Your task to perform on an android device: delete browsing data in the chrome app Image 0: 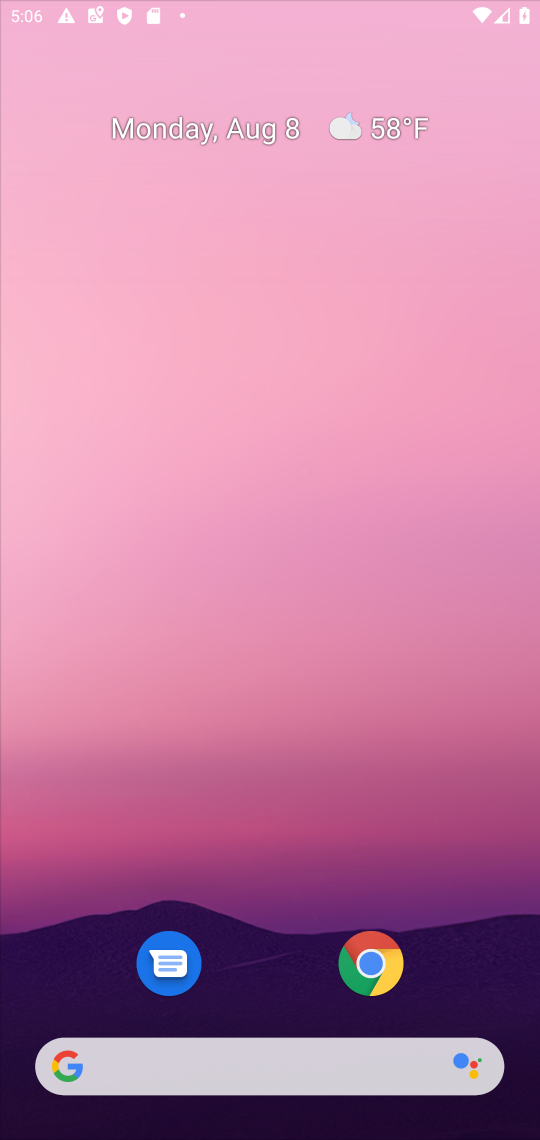
Step 0: press home button
Your task to perform on an android device: delete browsing data in the chrome app Image 1: 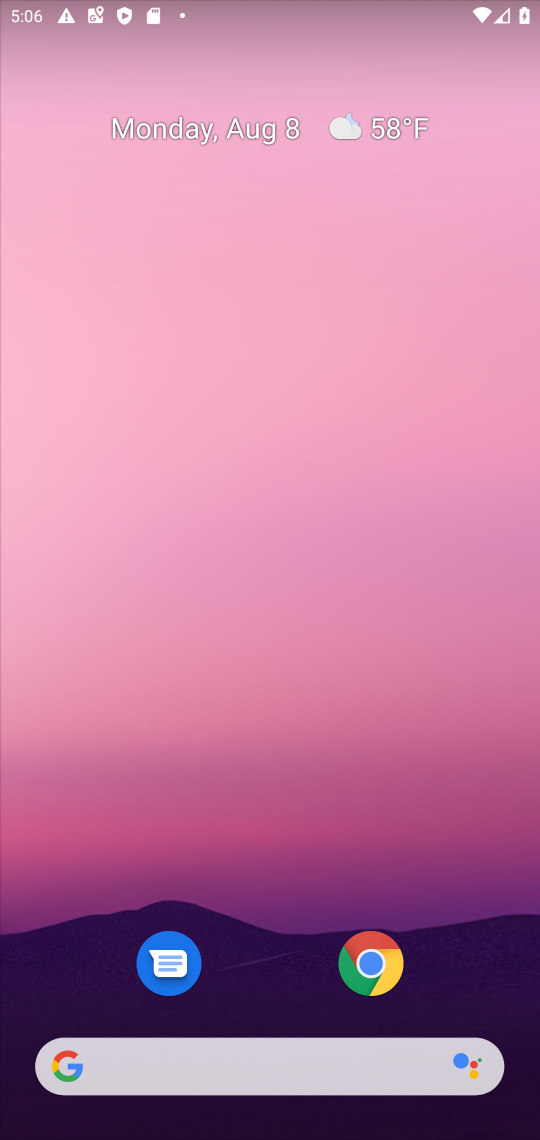
Step 1: click (366, 956)
Your task to perform on an android device: delete browsing data in the chrome app Image 2: 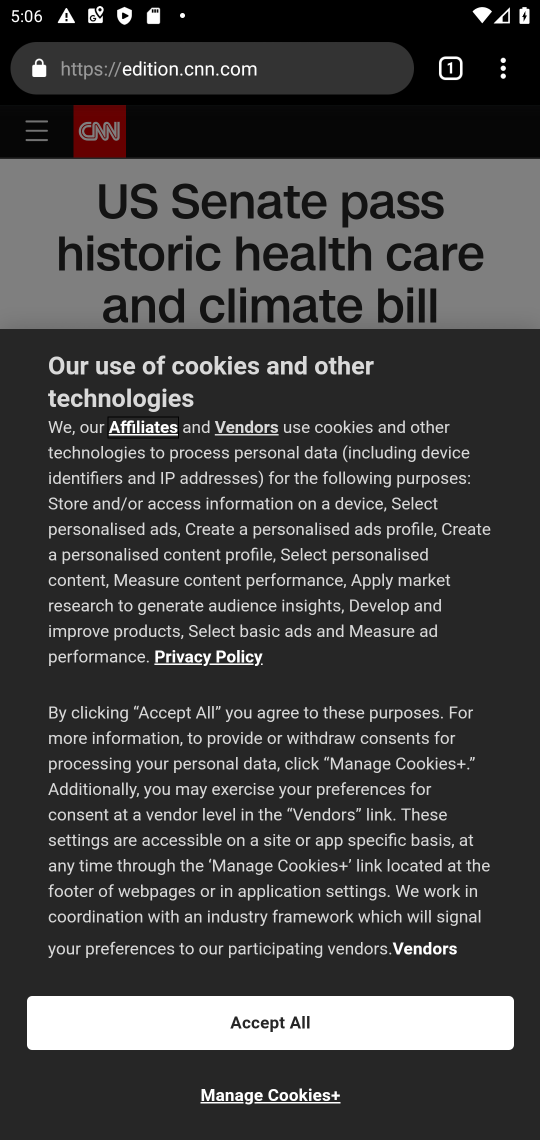
Step 2: click (501, 51)
Your task to perform on an android device: delete browsing data in the chrome app Image 3: 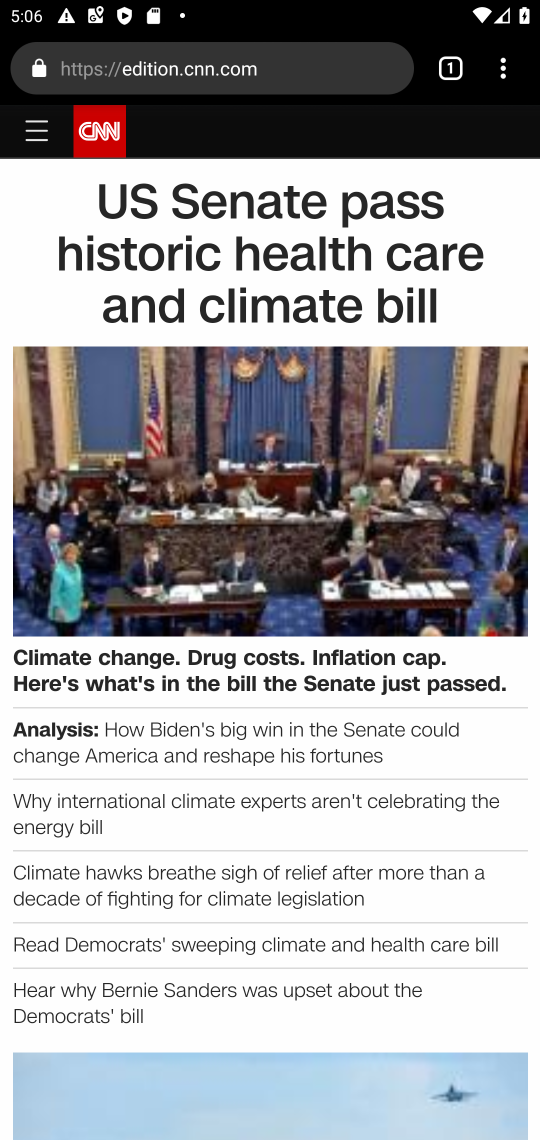
Step 3: click (512, 75)
Your task to perform on an android device: delete browsing data in the chrome app Image 4: 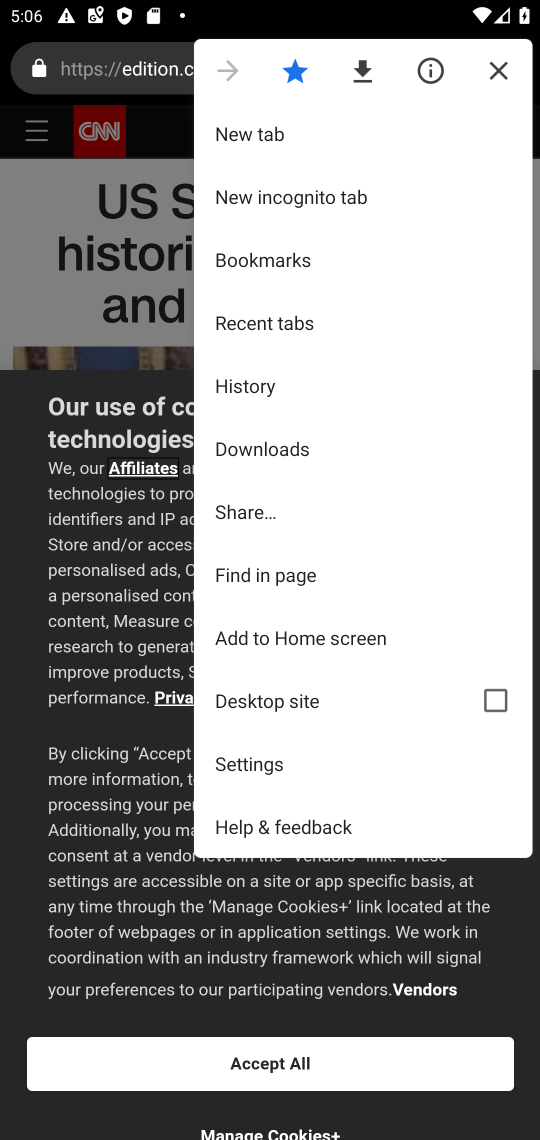
Step 4: click (255, 386)
Your task to perform on an android device: delete browsing data in the chrome app Image 5: 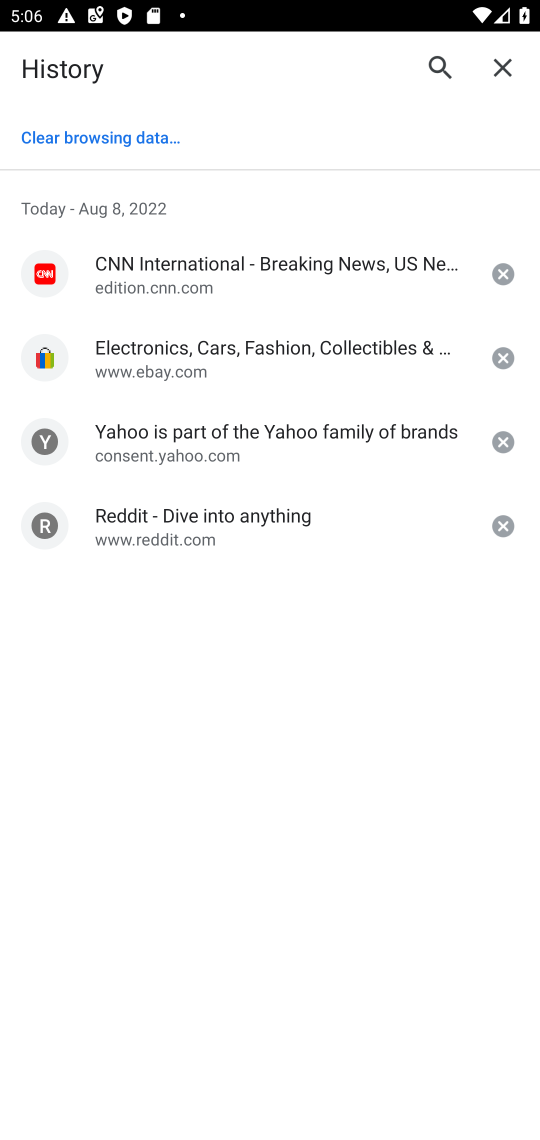
Step 5: click (98, 139)
Your task to perform on an android device: delete browsing data in the chrome app Image 6: 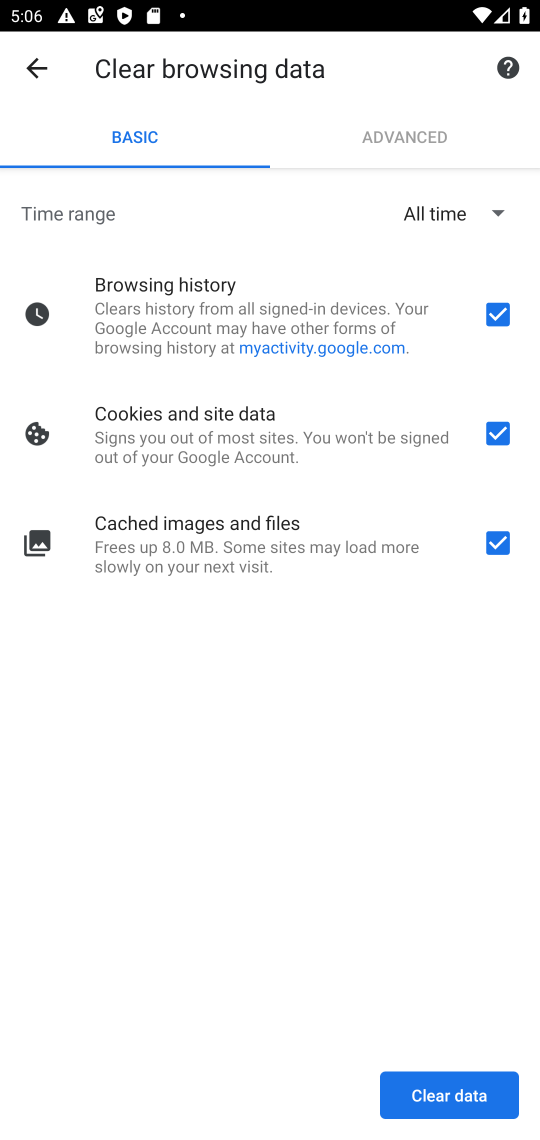
Step 6: click (423, 1115)
Your task to perform on an android device: delete browsing data in the chrome app Image 7: 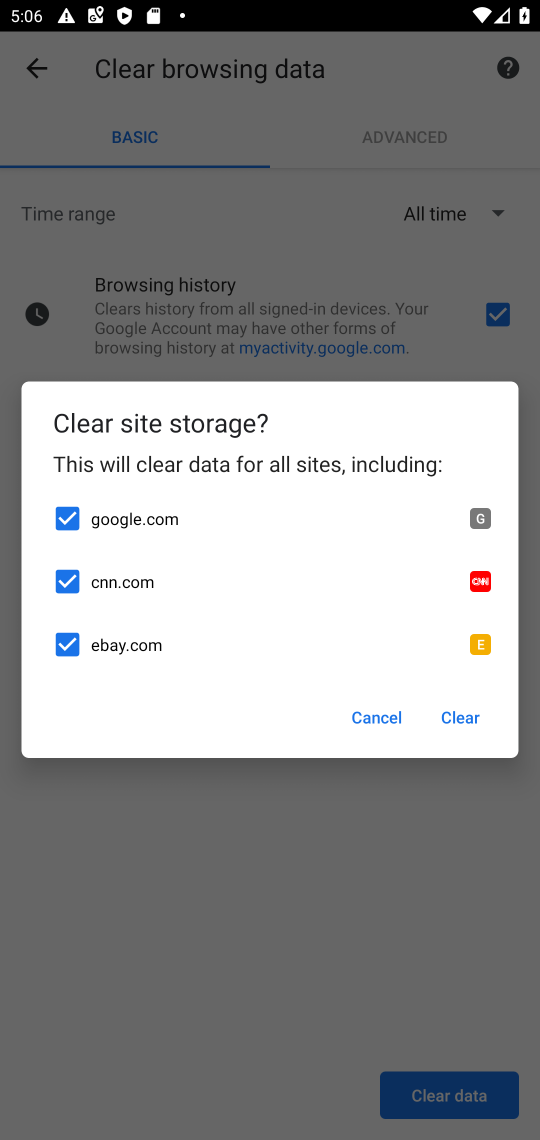
Step 7: click (471, 723)
Your task to perform on an android device: delete browsing data in the chrome app Image 8: 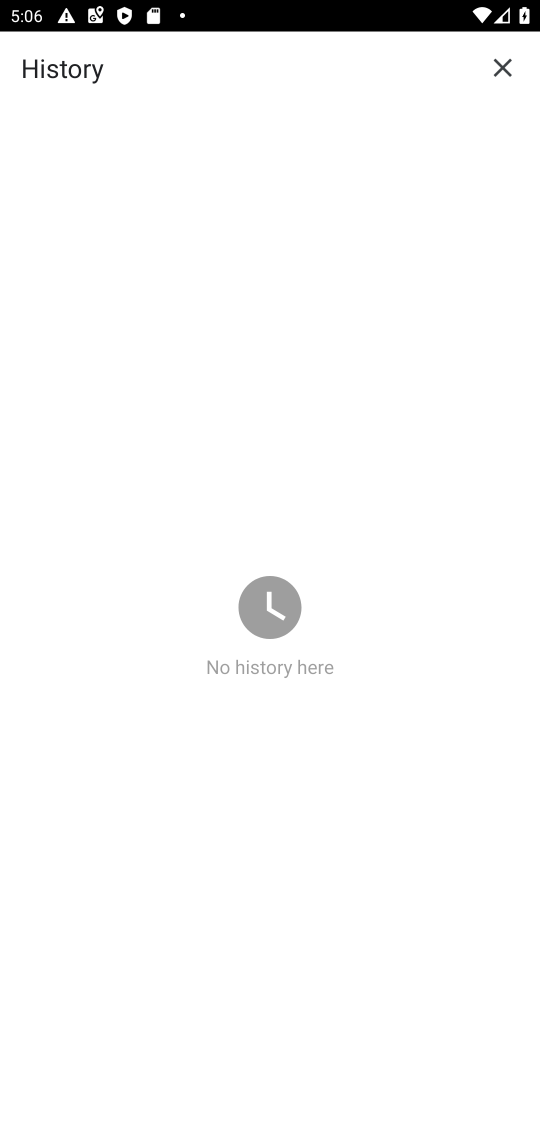
Step 8: task complete